Your task to perform on an android device: change the clock display to analog Image 0: 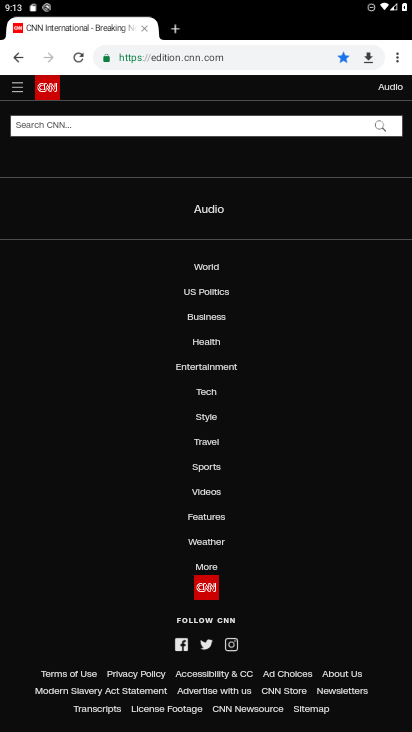
Step 0: press home button
Your task to perform on an android device: change the clock display to analog Image 1: 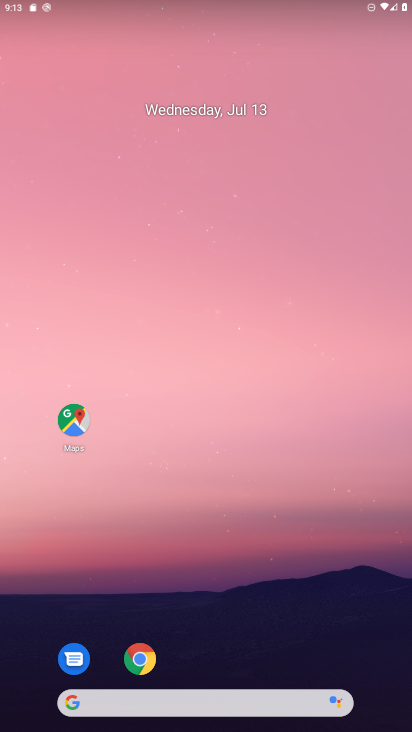
Step 1: drag from (182, 681) to (170, 85)
Your task to perform on an android device: change the clock display to analog Image 2: 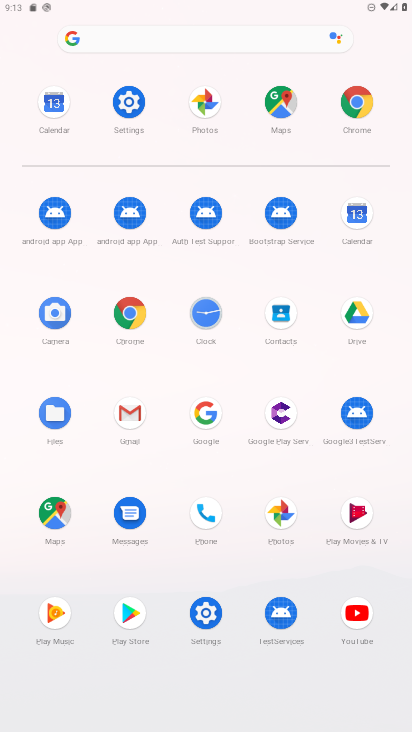
Step 2: click (205, 309)
Your task to perform on an android device: change the clock display to analog Image 3: 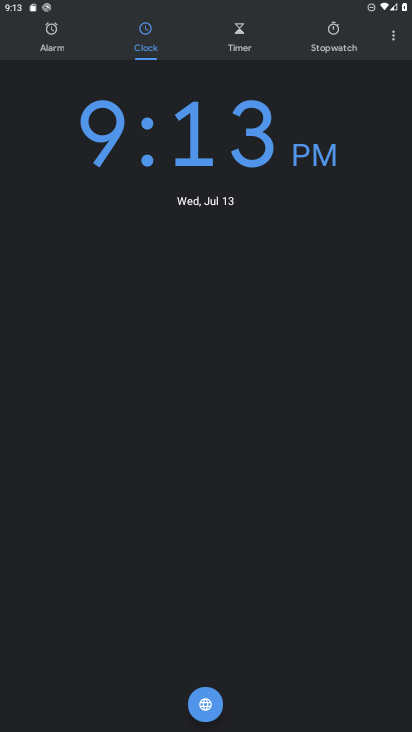
Step 3: click (369, 46)
Your task to perform on an android device: change the clock display to analog Image 4: 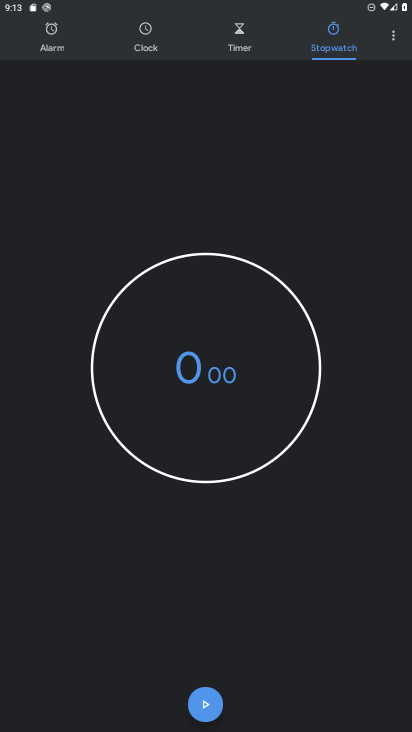
Step 4: click (389, 32)
Your task to perform on an android device: change the clock display to analog Image 5: 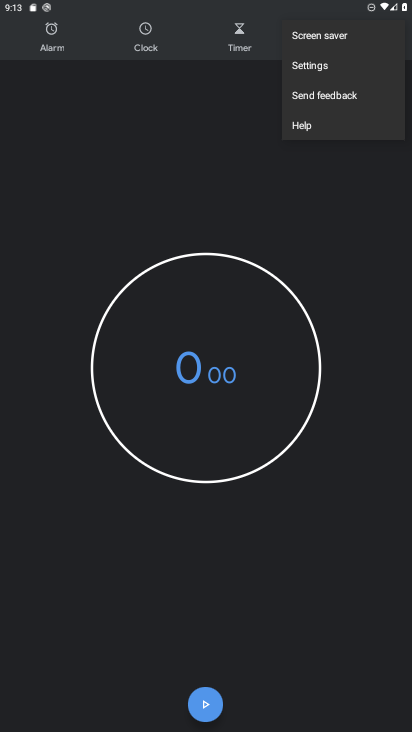
Step 5: task complete